Your task to perform on an android device: check out phone information Image 0: 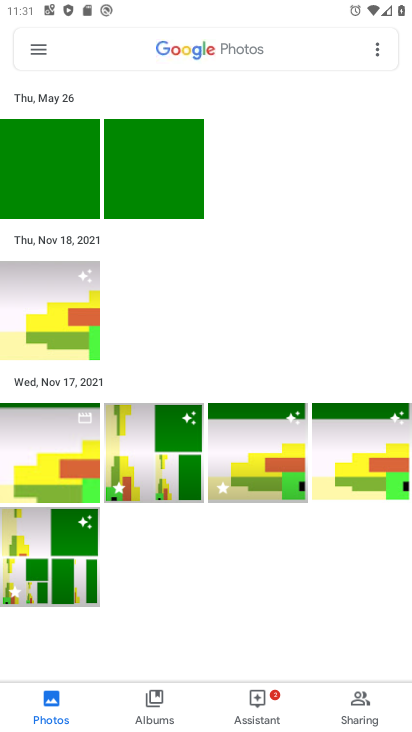
Step 0: press home button
Your task to perform on an android device: check out phone information Image 1: 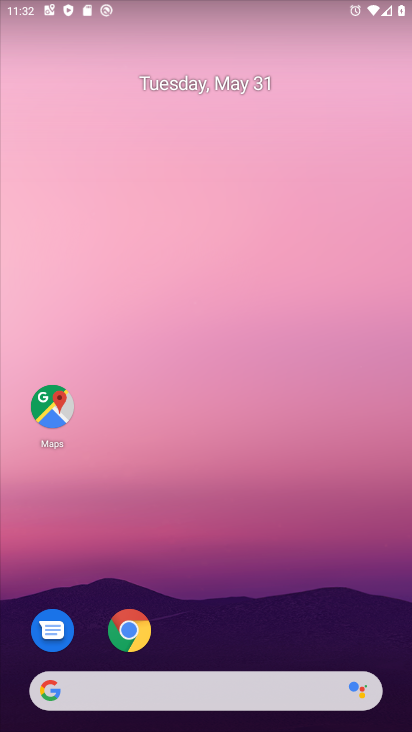
Step 1: drag from (176, 725) to (228, 116)
Your task to perform on an android device: check out phone information Image 2: 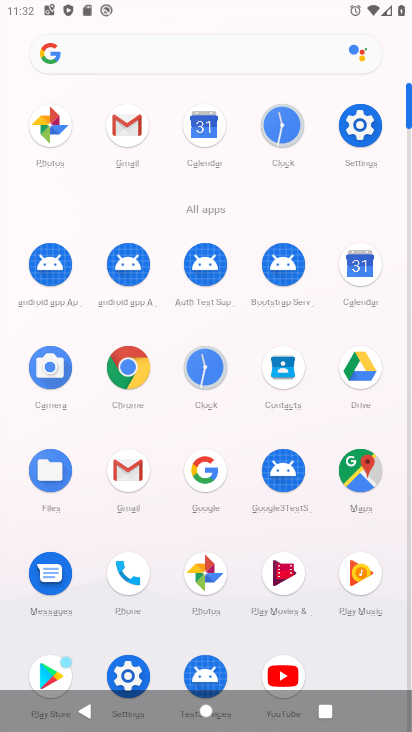
Step 2: click (353, 142)
Your task to perform on an android device: check out phone information Image 3: 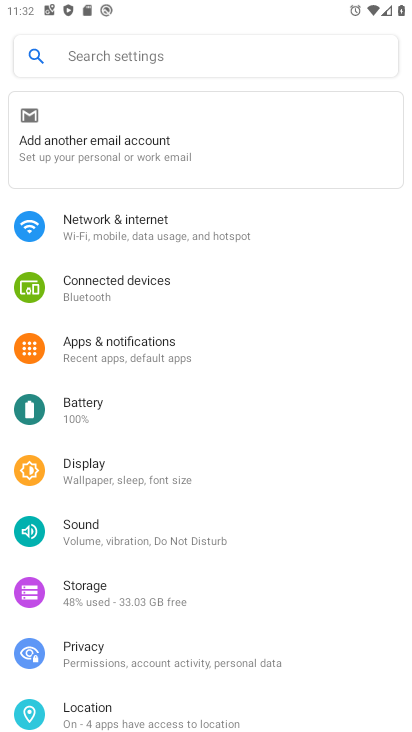
Step 3: drag from (262, 670) to (224, 130)
Your task to perform on an android device: check out phone information Image 4: 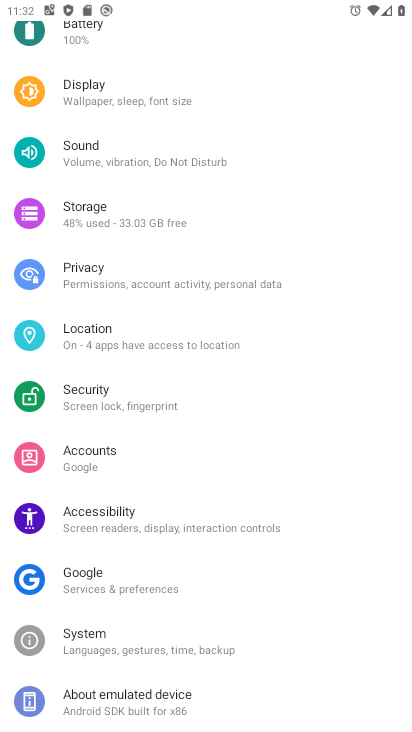
Step 4: click (130, 705)
Your task to perform on an android device: check out phone information Image 5: 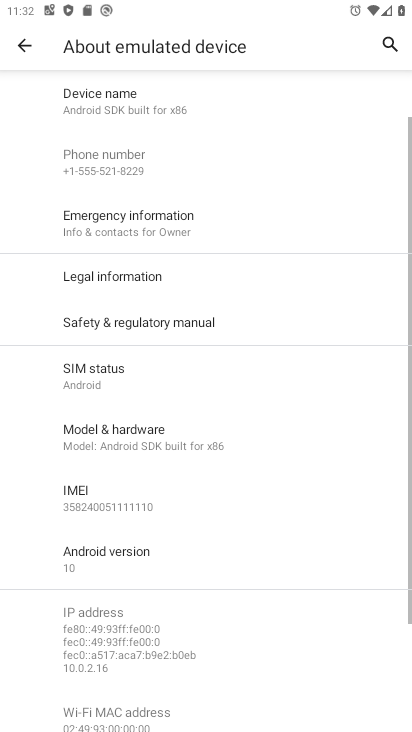
Step 5: task complete